Your task to perform on an android device: uninstall "Cash App" Image 0: 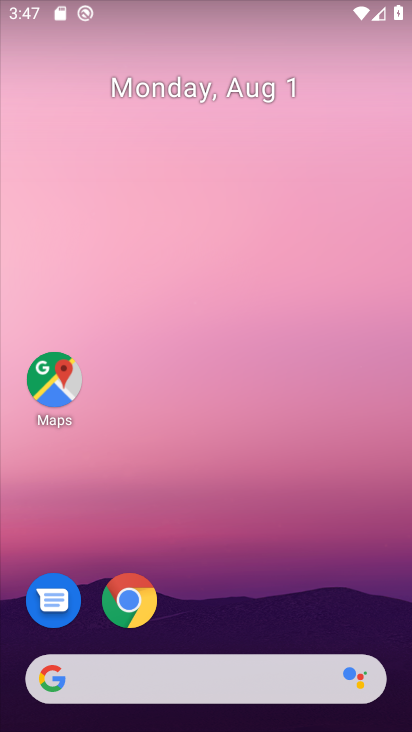
Step 0: drag from (251, 463) to (235, 105)
Your task to perform on an android device: uninstall "Cash App" Image 1: 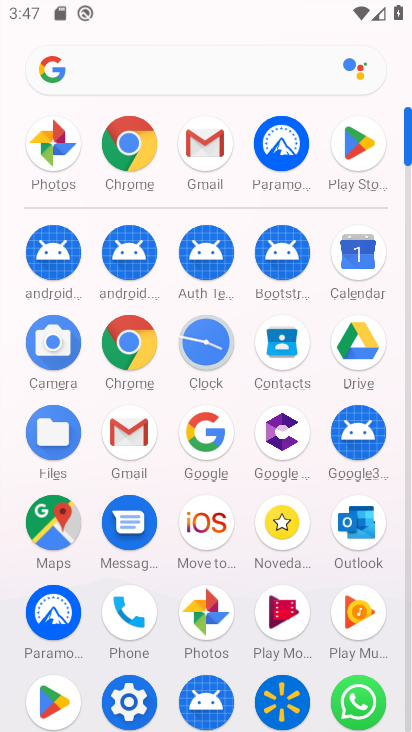
Step 1: click (350, 144)
Your task to perform on an android device: uninstall "Cash App" Image 2: 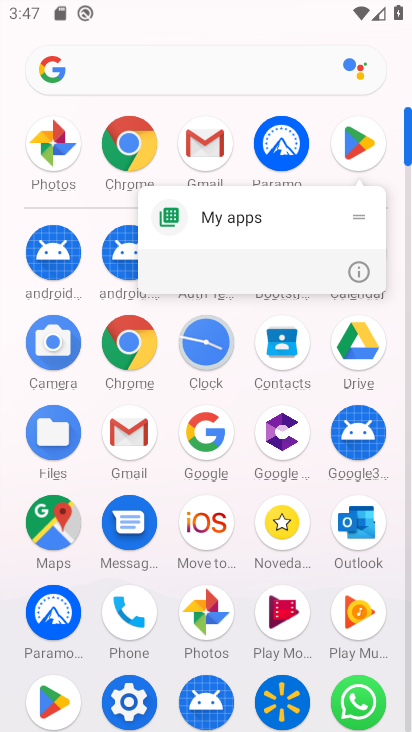
Step 2: click (362, 144)
Your task to perform on an android device: uninstall "Cash App" Image 3: 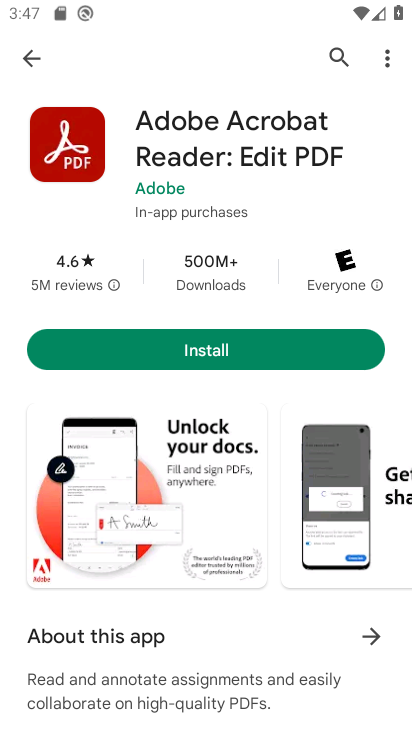
Step 3: click (335, 50)
Your task to perform on an android device: uninstall "Cash App" Image 4: 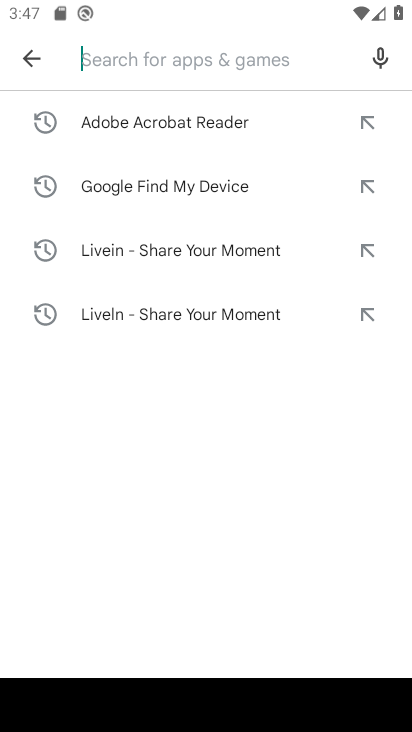
Step 4: type "Cash App"
Your task to perform on an android device: uninstall "Cash App" Image 5: 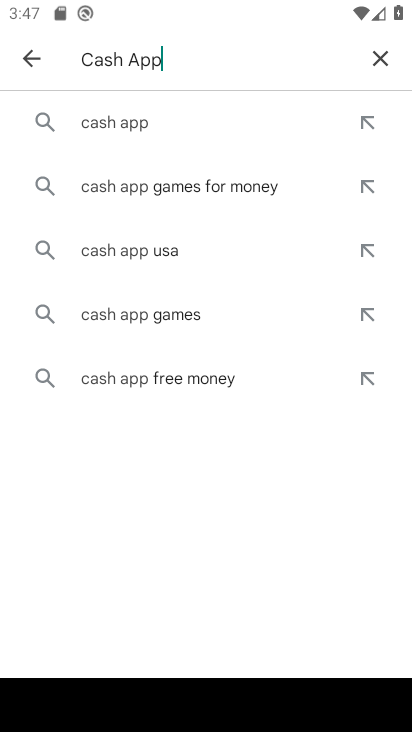
Step 5: press enter
Your task to perform on an android device: uninstall "Cash App" Image 6: 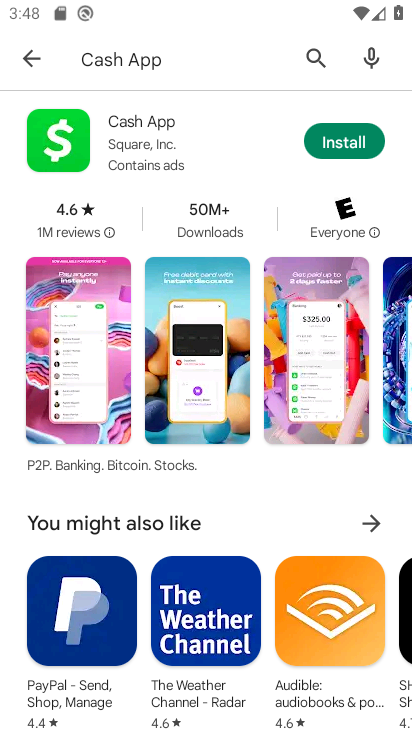
Step 6: click (153, 117)
Your task to perform on an android device: uninstall "Cash App" Image 7: 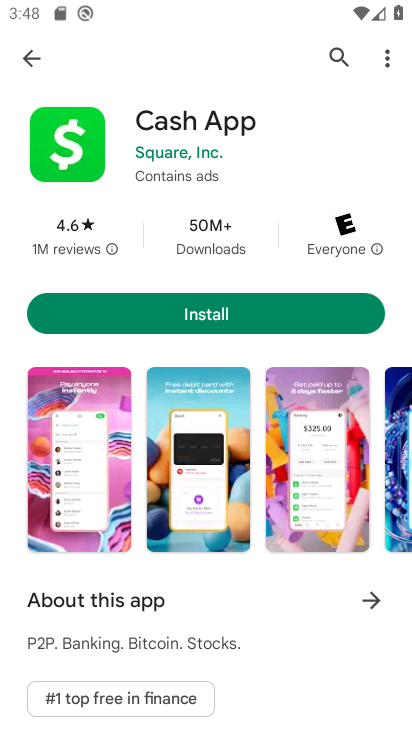
Step 7: task complete